Your task to perform on an android device: Look up the best selling books on Goodreads. Image 0: 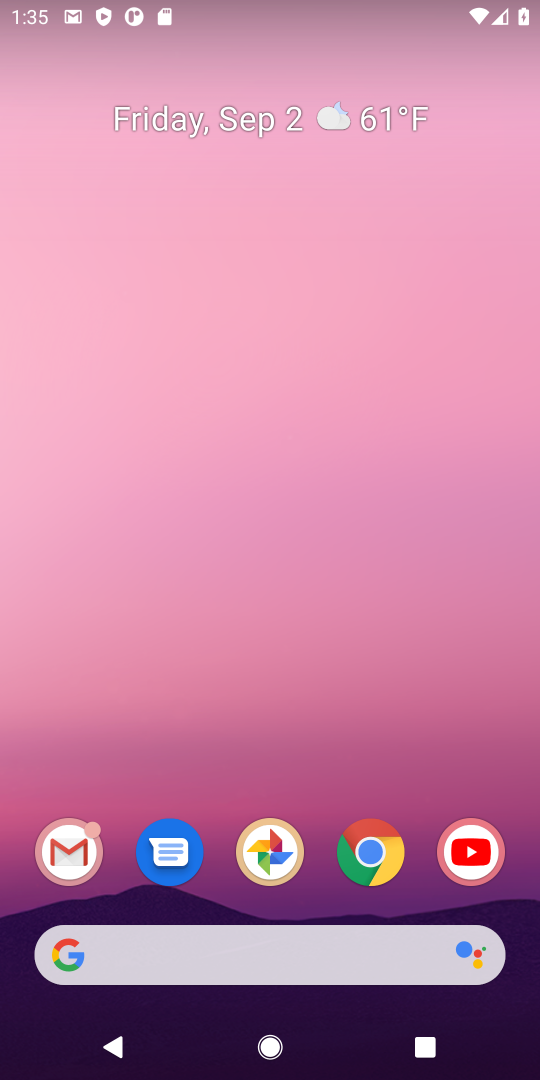
Step 0: drag from (374, 398) to (322, 73)
Your task to perform on an android device: Look up the best selling books on Goodreads. Image 1: 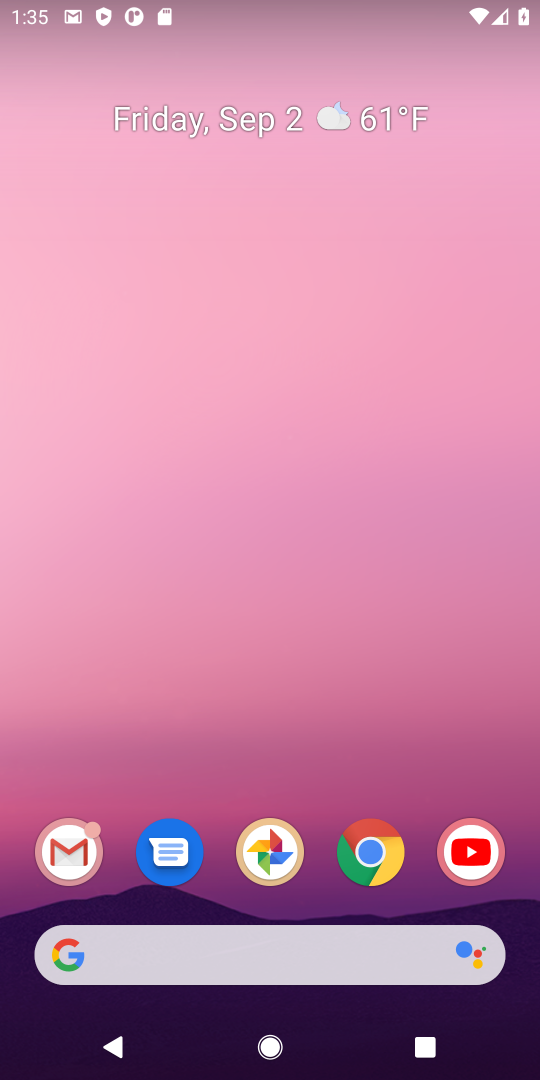
Step 1: drag from (406, 789) to (343, 0)
Your task to perform on an android device: Look up the best selling books on Goodreads. Image 2: 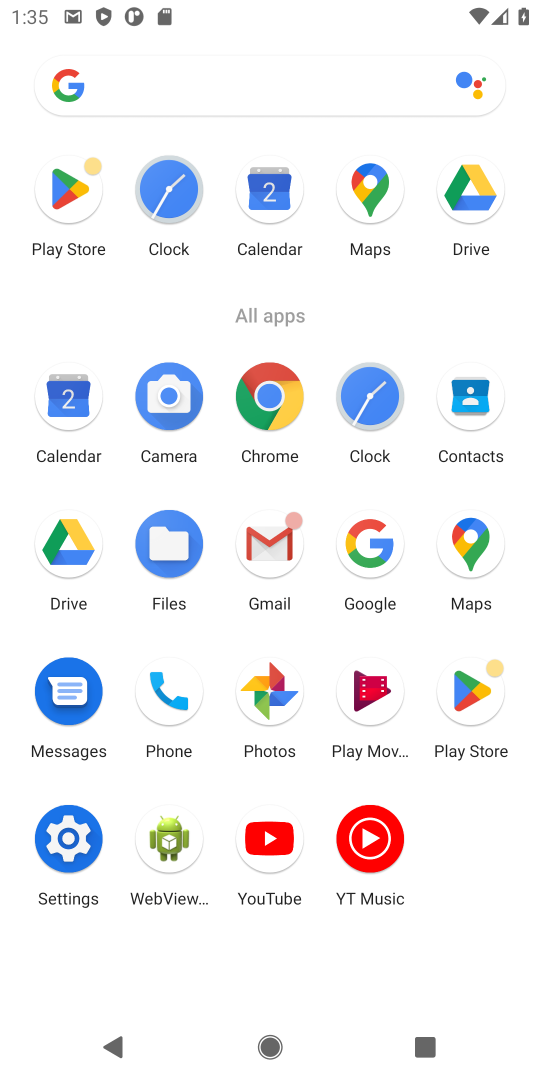
Step 2: click (275, 393)
Your task to perform on an android device: Look up the best selling books on Goodreads. Image 3: 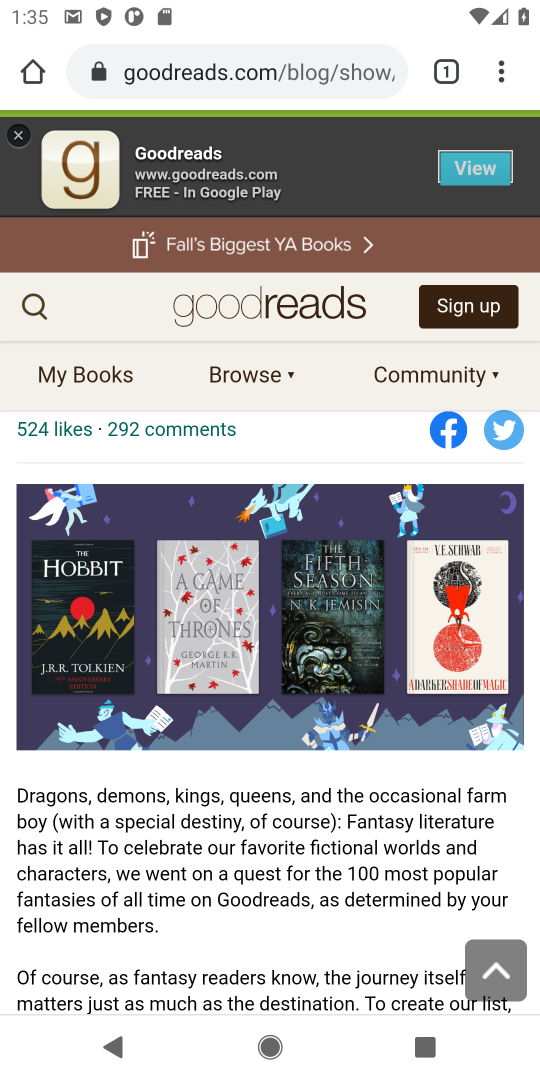
Step 3: click (287, 73)
Your task to perform on an android device: Look up the best selling books on Goodreads. Image 4: 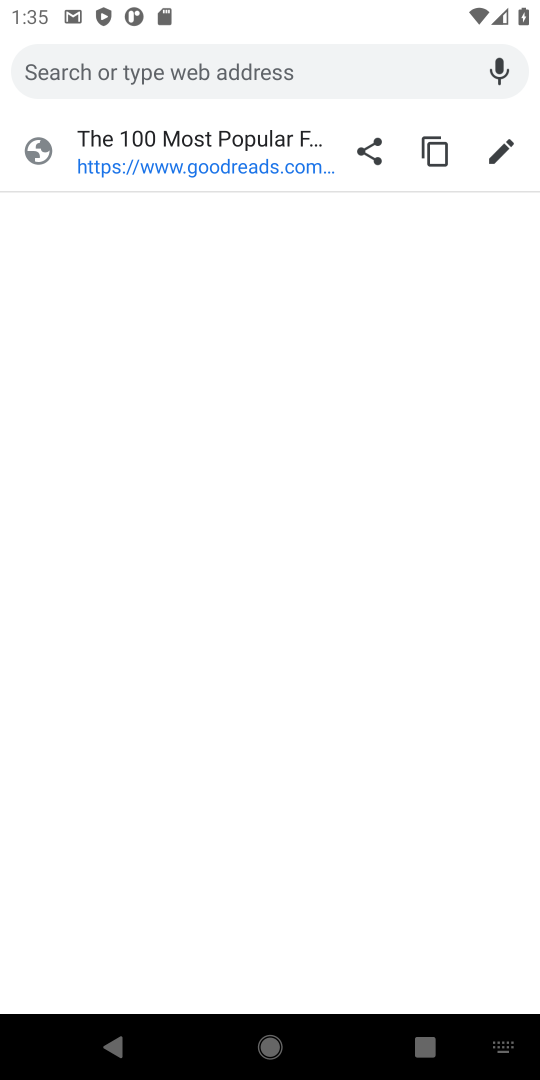
Step 4: type "best selling books on Goodreads"
Your task to perform on an android device: Look up the best selling books on Goodreads. Image 5: 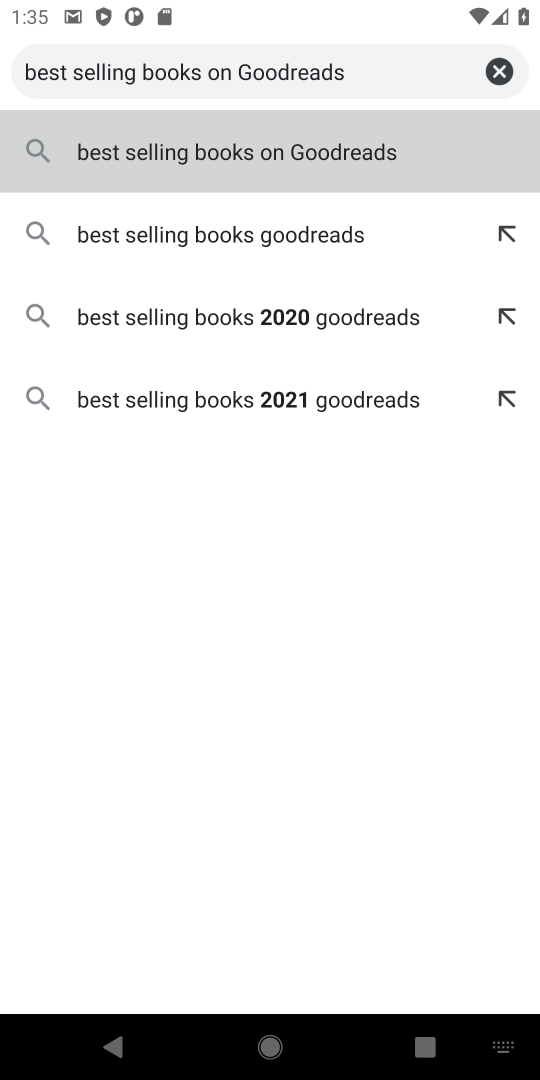
Step 5: press enter
Your task to perform on an android device: Look up the best selling books on Goodreads. Image 6: 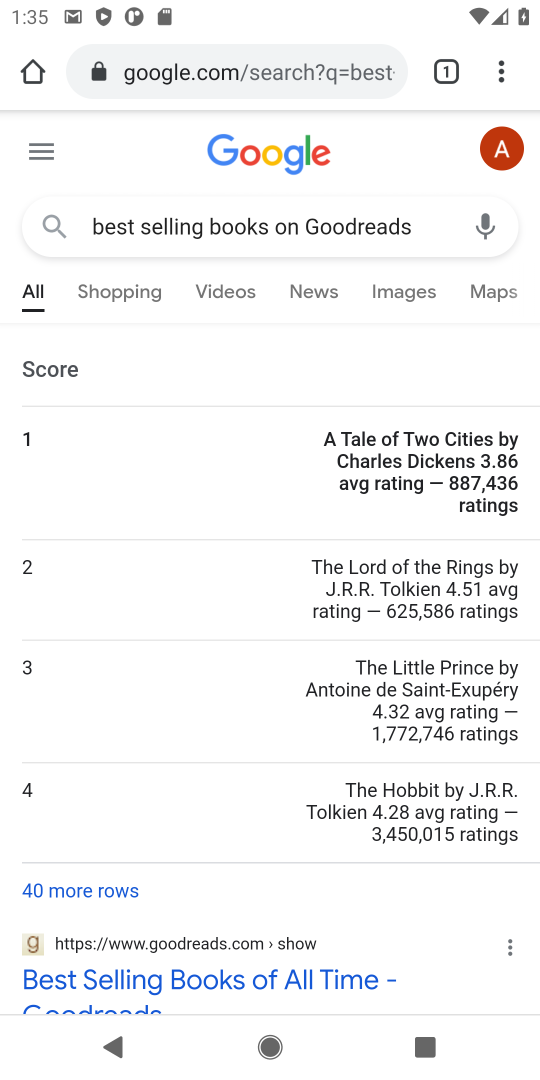
Step 6: drag from (268, 672) to (264, 9)
Your task to perform on an android device: Look up the best selling books on Goodreads. Image 7: 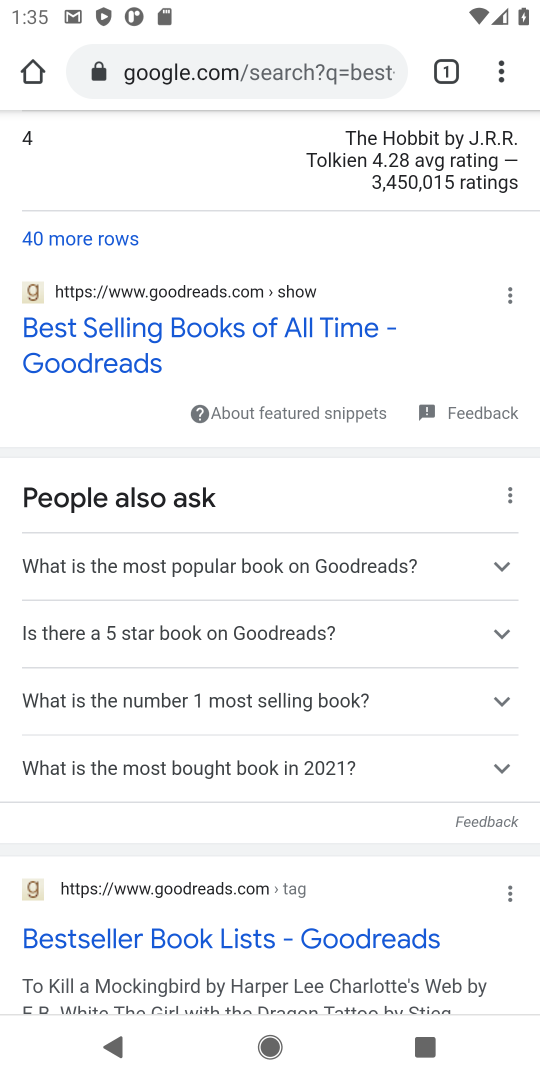
Step 7: click (240, 327)
Your task to perform on an android device: Look up the best selling books on Goodreads. Image 8: 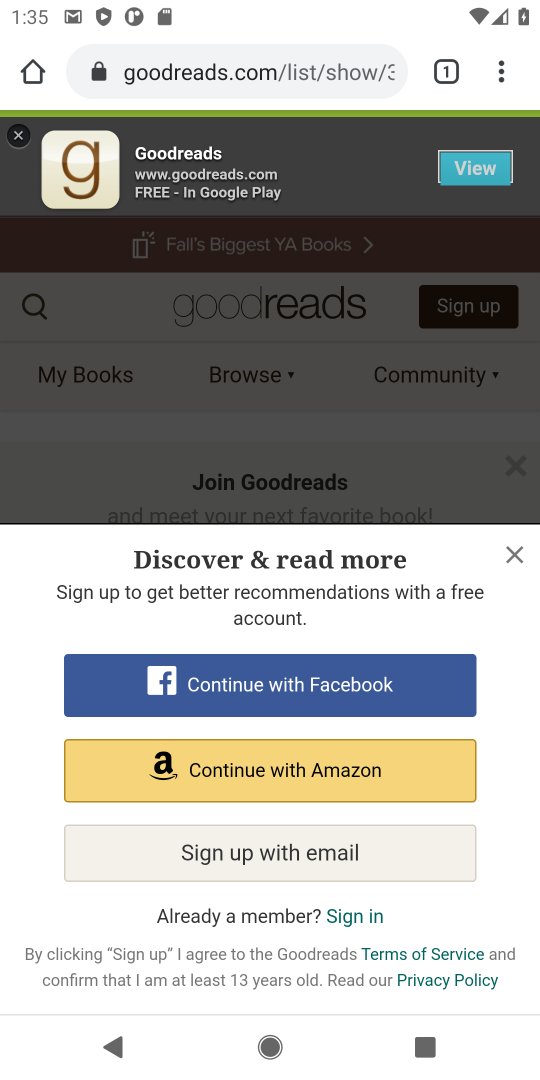
Step 8: click (502, 555)
Your task to perform on an android device: Look up the best selling books on Goodreads. Image 9: 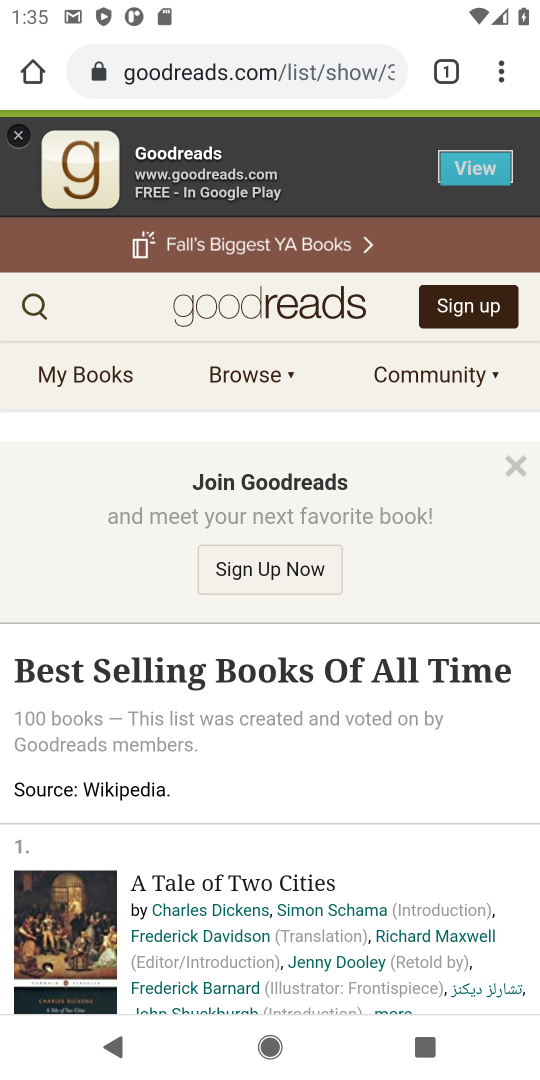
Step 9: task complete